Your task to perform on an android device: Search for "alienware aurora" on bestbuy.com, select the first entry, and add it to the cart. Image 0: 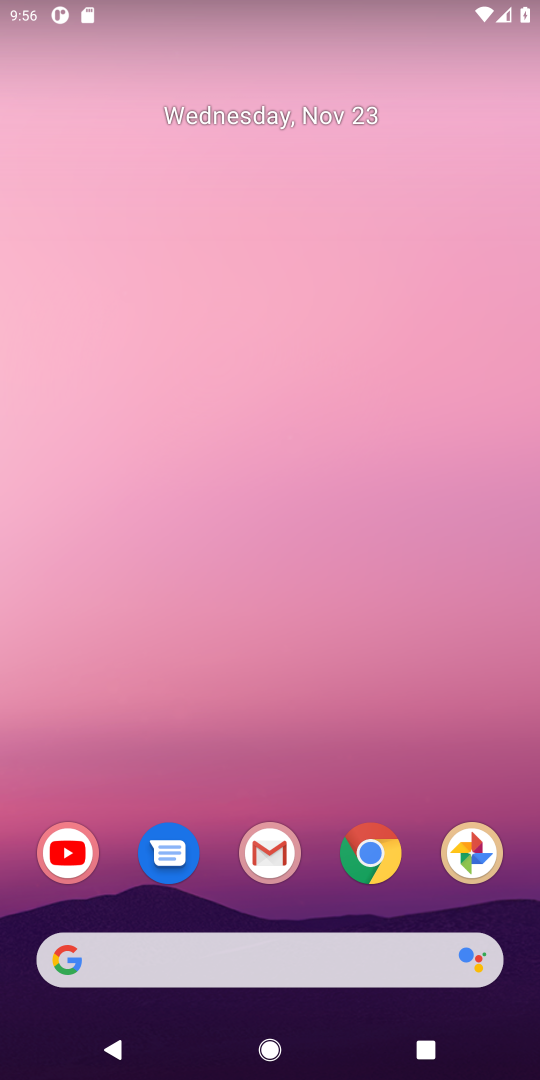
Step 0: click (385, 857)
Your task to perform on an android device: Search for "alienware aurora" on bestbuy.com, select the first entry, and add it to the cart. Image 1: 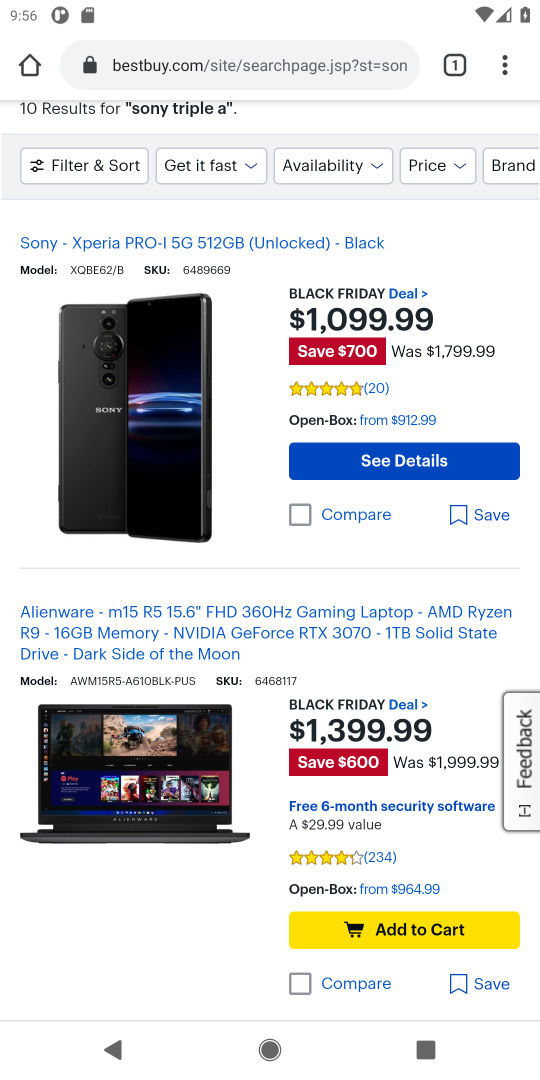
Step 1: drag from (280, 459) to (199, 785)
Your task to perform on an android device: Search for "alienware aurora" on bestbuy.com, select the first entry, and add it to the cart. Image 2: 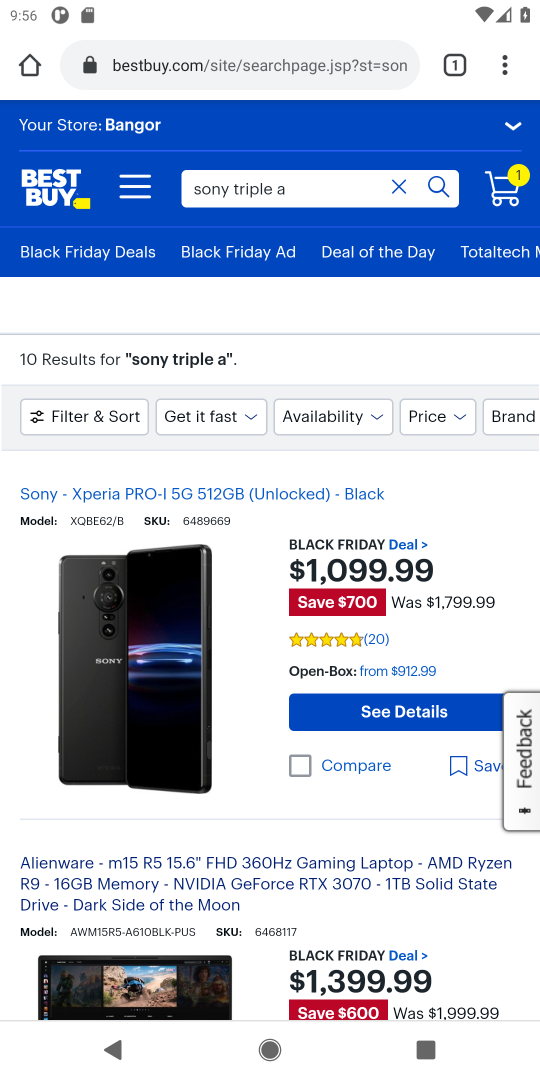
Step 2: click (401, 185)
Your task to perform on an android device: Search for "alienware aurora" on bestbuy.com, select the first entry, and add it to the cart. Image 3: 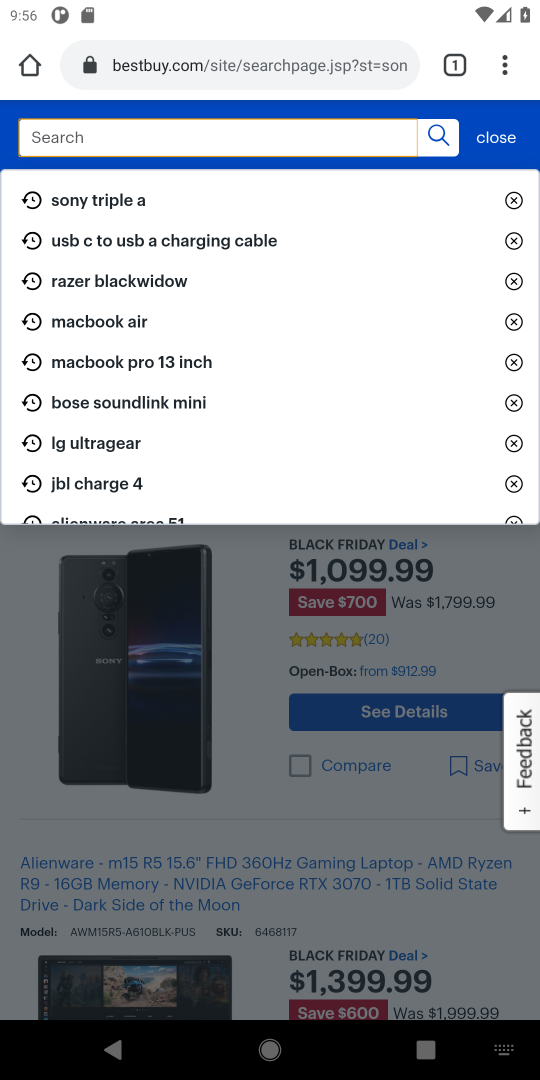
Step 3: type "alienware aurora"
Your task to perform on an android device: Search for "alienware aurora" on bestbuy.com, select the first entry, and add it to the cart. Image 4: 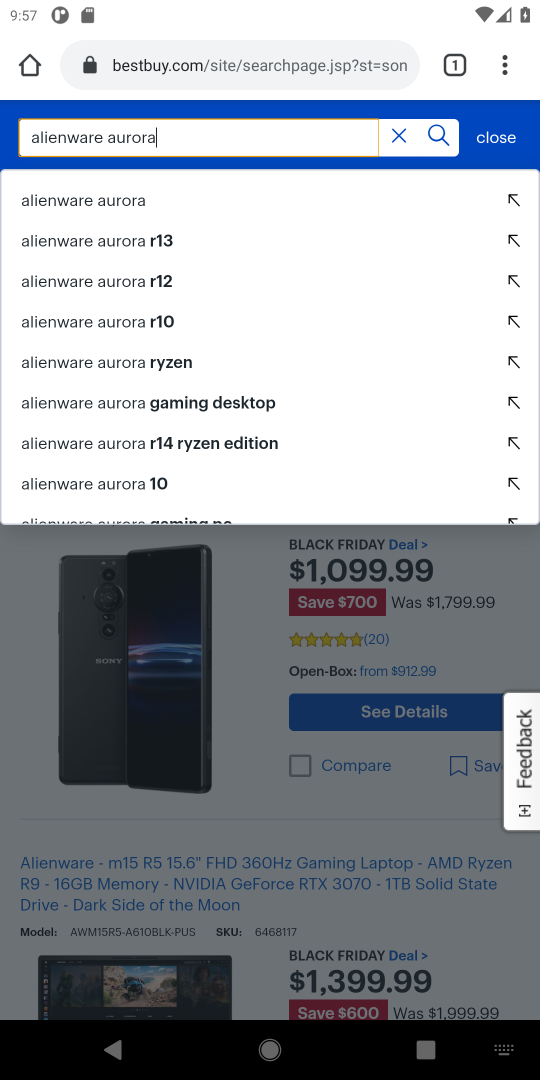
Step 4: click (74, 198)
Your task to perform on an android device: Search for "alienware aurora" on bestbuy.com, select the first entry, and add it to the cart. Image 5: 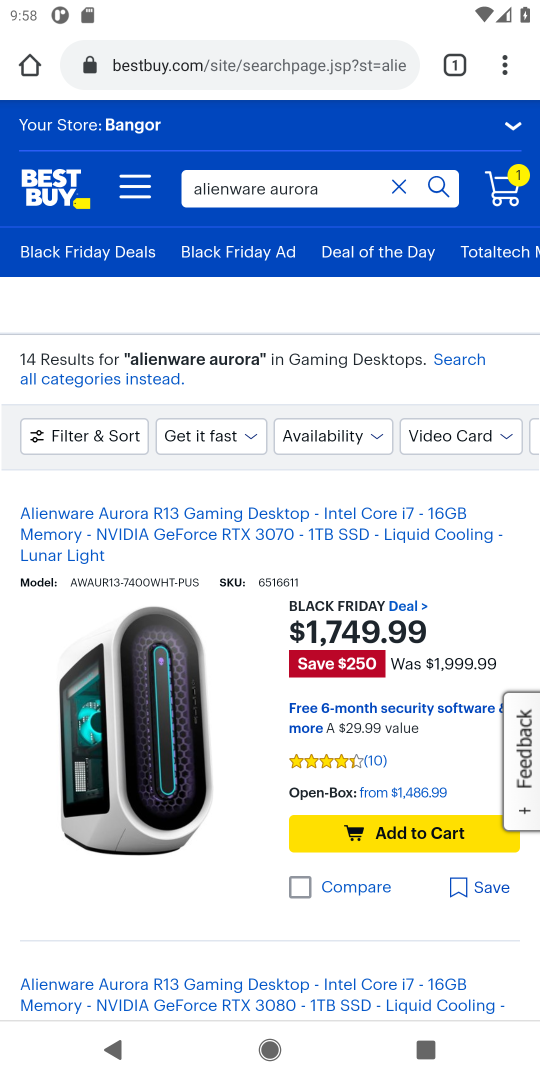
Step 5: click (412, 833)
Your task to perform on an android device: Search for "alienware aurora" on bestbuy.com, select the first entry, and add it to the cart. Image 6: 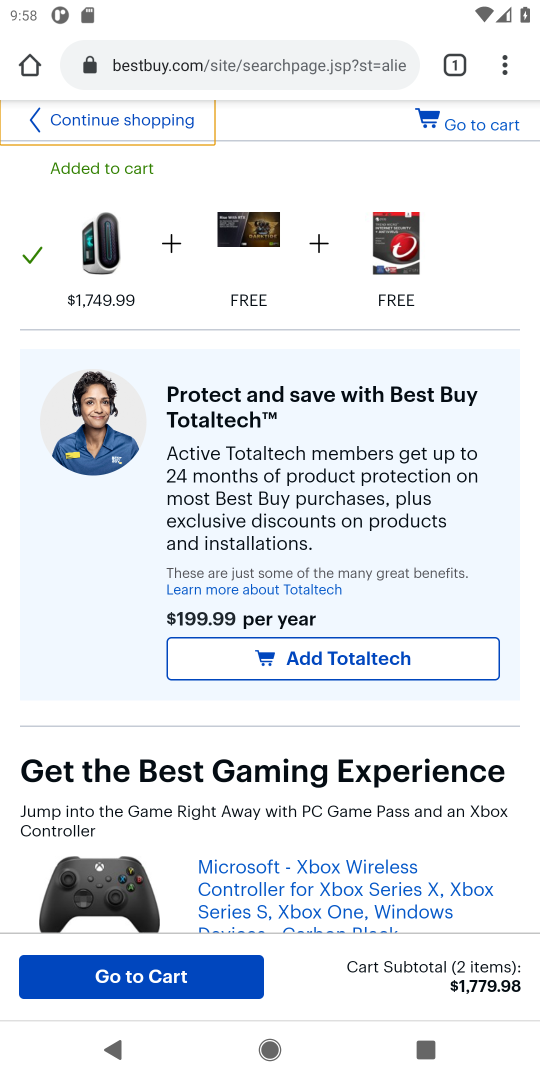
Step 6: task complete